Your task to perform on an android device: turn on sleep mode Image 0: 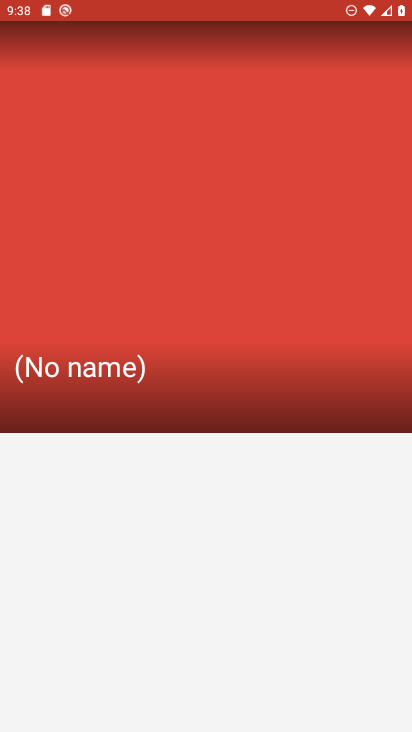
Step 0: press home button
Your task to perform on an android device: turn on sleep mode Image 1: 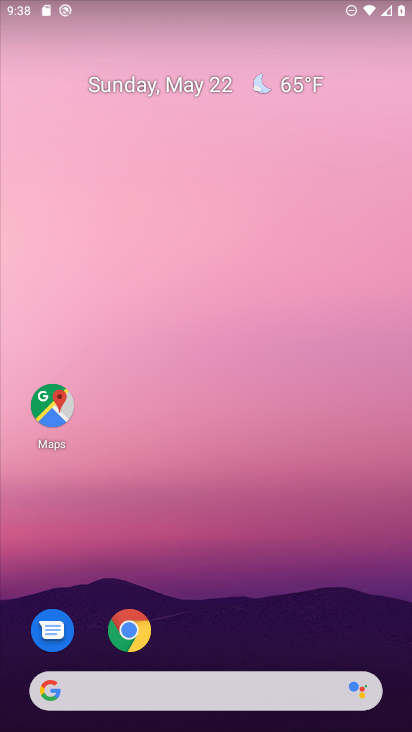
Step 1: drag from (166, 686) to (314, 108)
Your task to perform on an android device: turn on sleep mode Image 2: 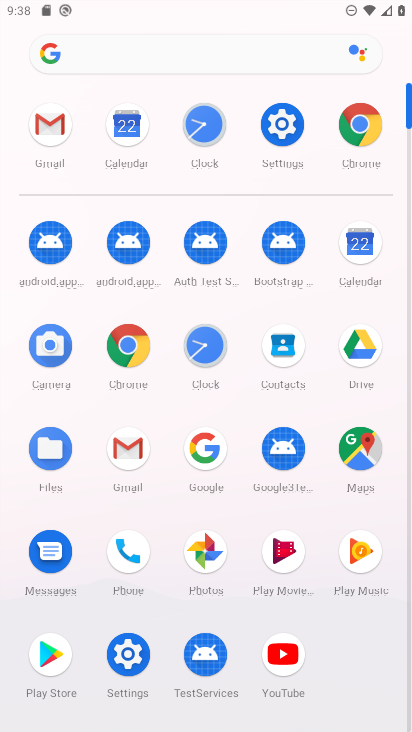
Step 2: click (279, 119)
Your task to perform on an android device: turn on sleep mode Image 3: 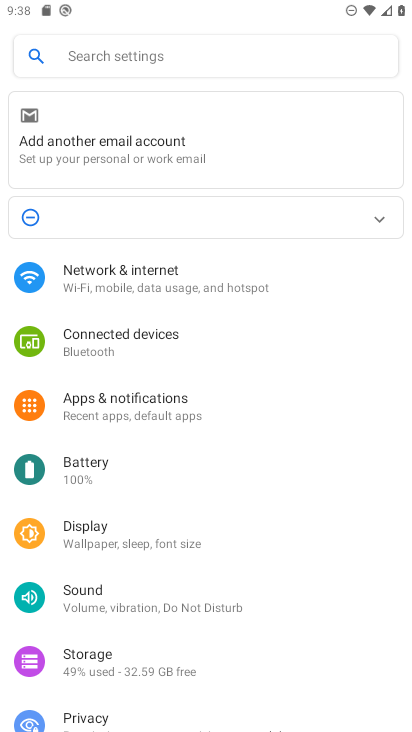
Step 3: click (108, 539)
Your task to perform on an android device: turn on sleep mode Image 4: 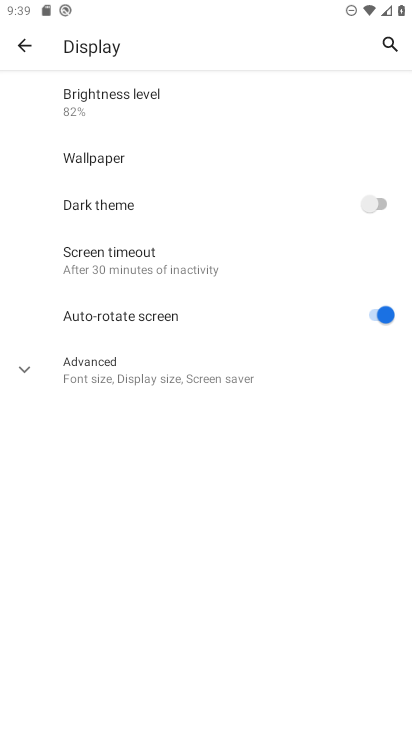
Step 4: task complete